Your task to perform on an android device: add a contact Image 0: 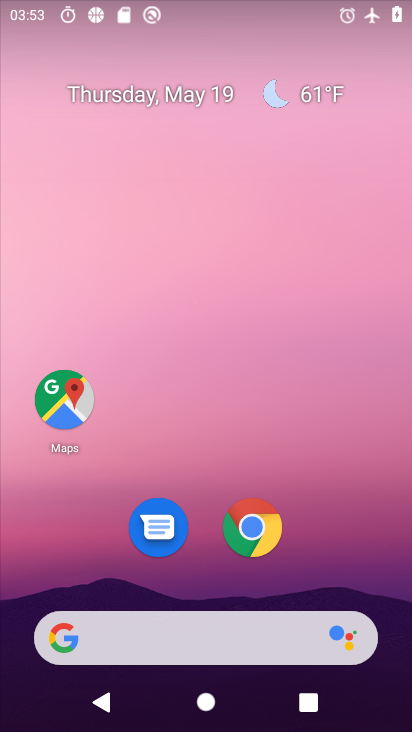
Step 0: drag from (207, 566) to (270, 155)
Your task to perform on an android device: add a contact Image 1: 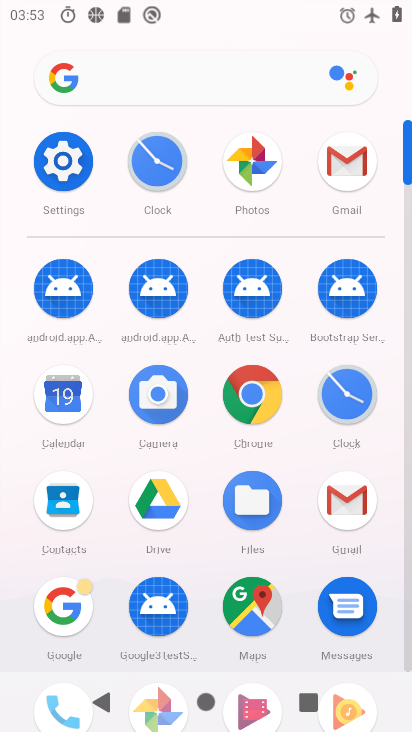
Step 1: click (73, 514)
Your task to perform on an android device: add a contact Image 2: 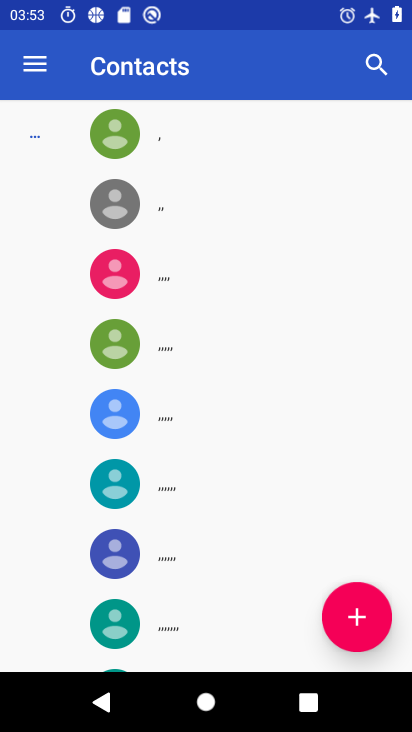
Step 2: click (358, 607)
Your task to perform on an android device: add a contact Image 3: 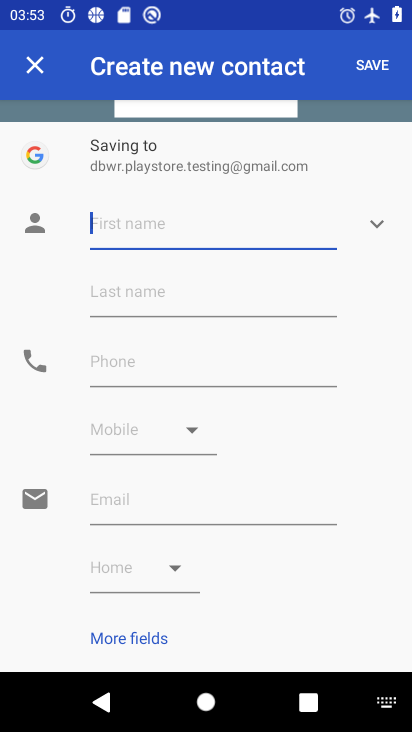
Step 3: click (123, 229)
Your task to perform on an android device: add a contact Image 4: 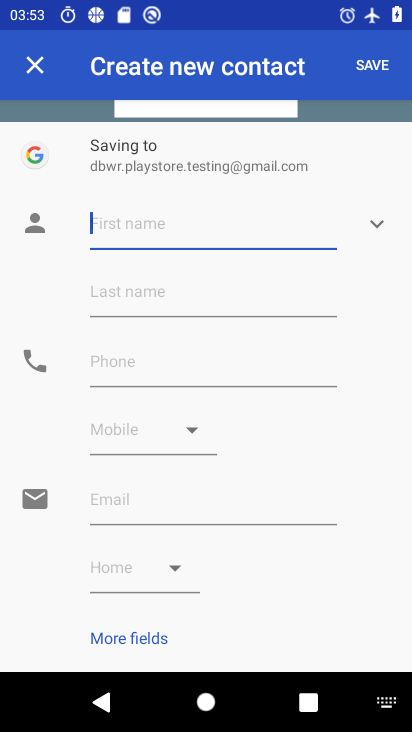
Step 4: type "bvv"
Your task to perform on an android device: add a contact Image 5: 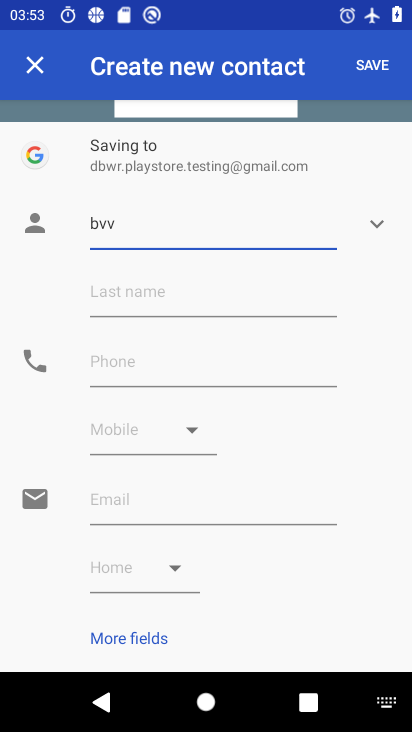
Step 5: click (169, 351)
Your task to perform on an android device: add a contact Image 6: 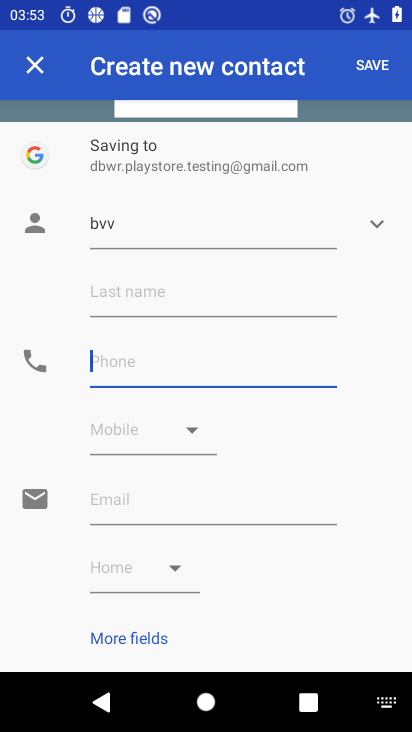
Step 6: type "8886"
Your task to perform on an android device: add a contact Image 7: 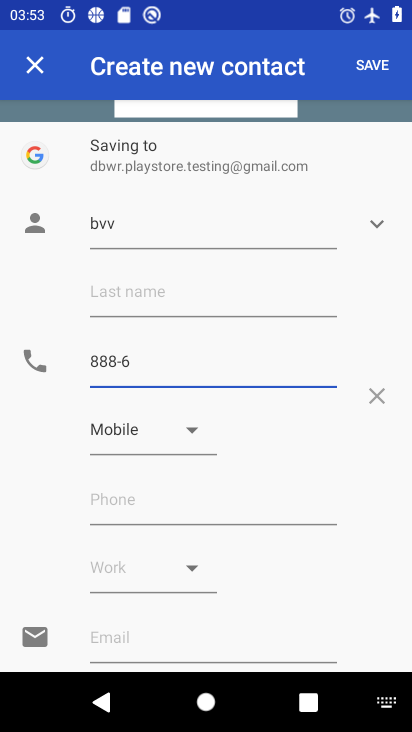
Step 7: click (373, 71)
Your task to perform on an android device: add a contact Image 8: 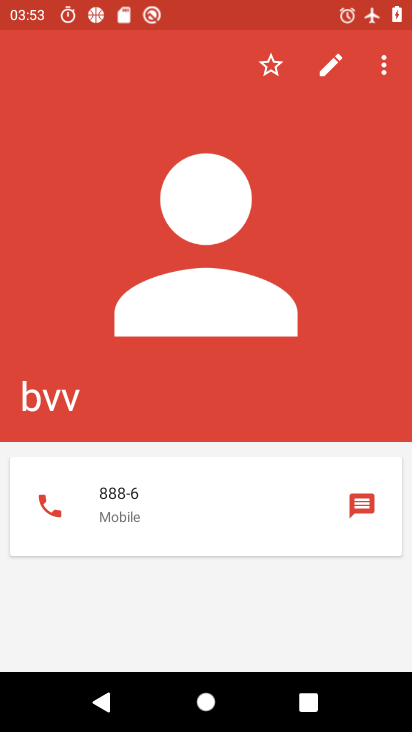
Step 8: task complete